Your task to perform on an android device: turn off translation in the chrome app Image 0: 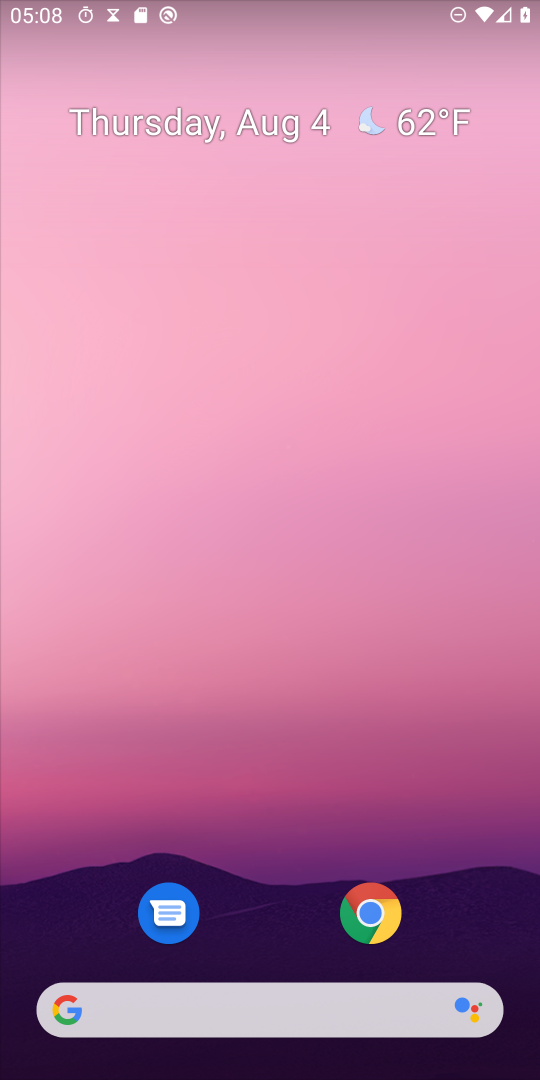
Step 0: drag from (306, 1023) to (199, 188)
Your task to perform on an android device: turn off translation in the chrome app Image 1: 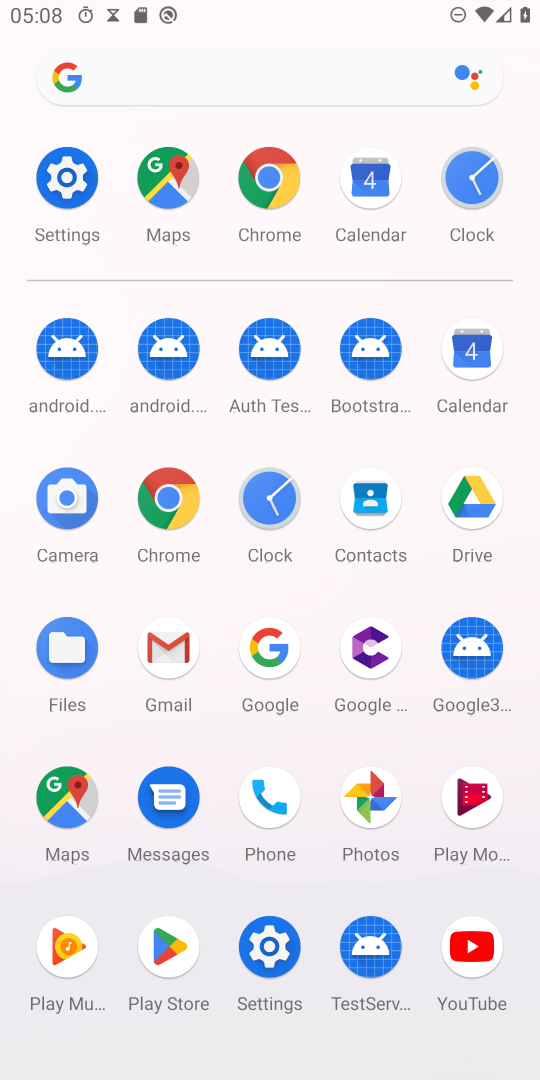
Step 1: click (272, 182)
Your task to perform on an android device: turn off translation in the chrome app Image 2: 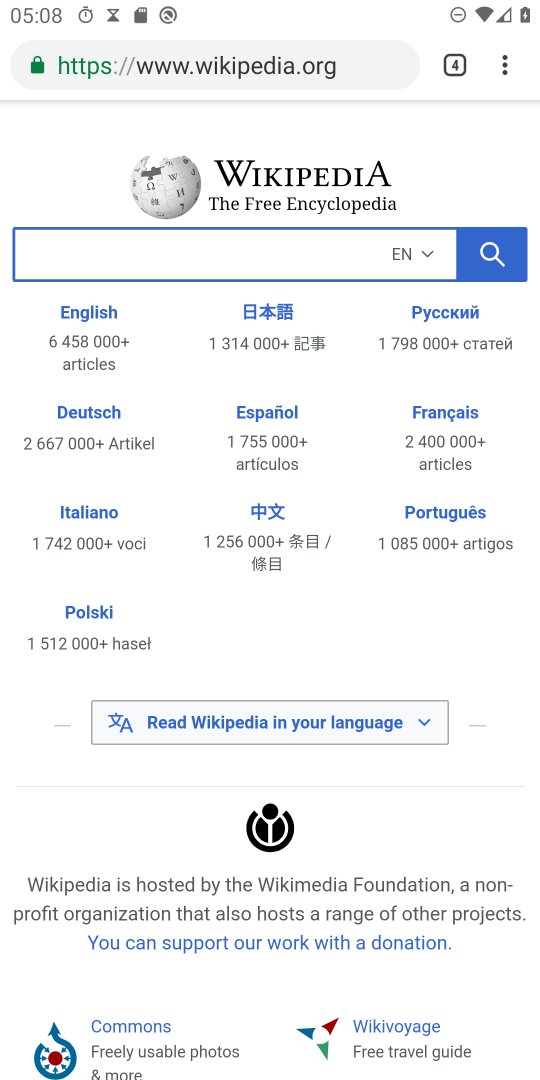
Step 2: drag from (503, 47) to (328, 724)
Your task to perform on an android device: turn off translation in the chrome app Image 3: 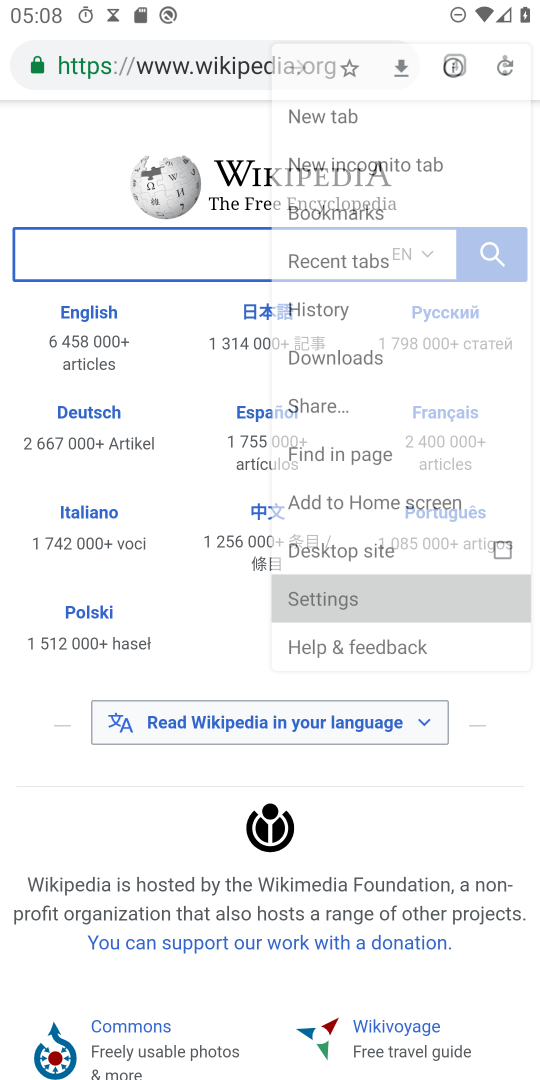
Step 3: click (331, 721)
Your task to perform on an android device: turn off translation in the chrome app Image 4: 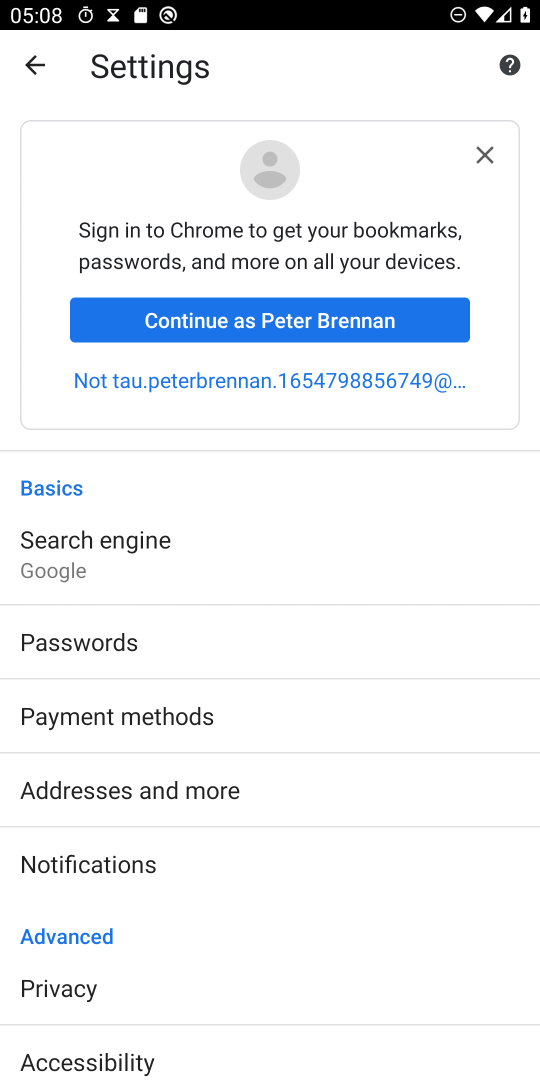
Step 4: drag from (264, 935) to (316, 228)
Your task to perform on an android device: turn off translation in the chrome app Image 5: 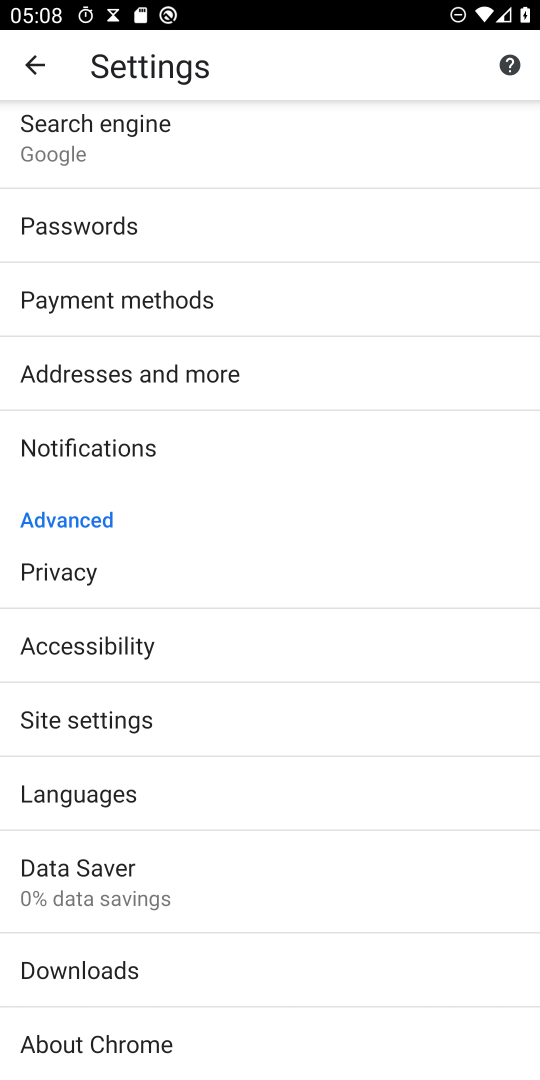
Step 5: click (249, 793)
Your task to perform on an android device: turn off translation in the chrome app Image 6: 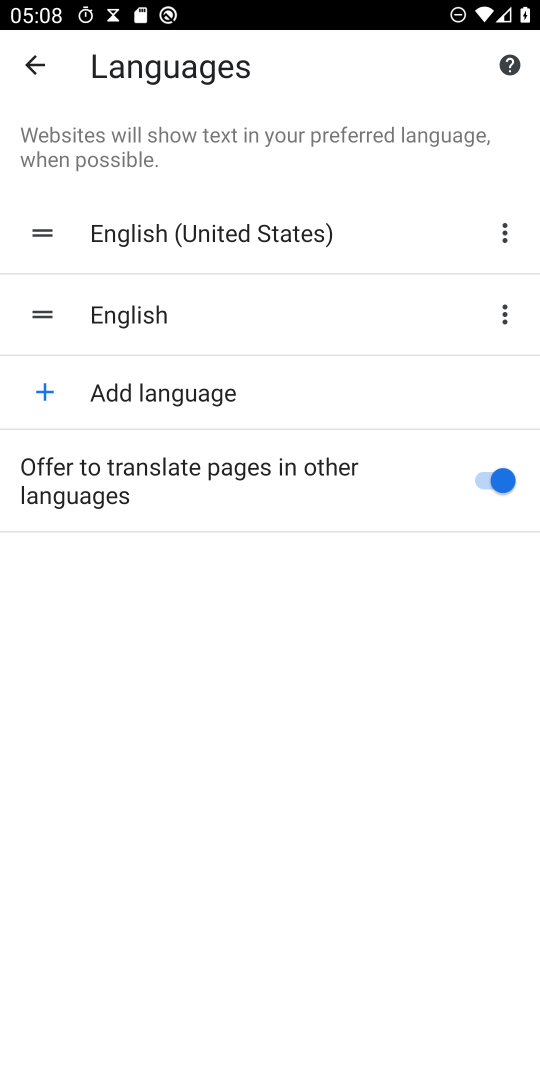
Step 6: click (495, 482)
Your task to perform on an android device: turn off translation in the chrome app Image 7: 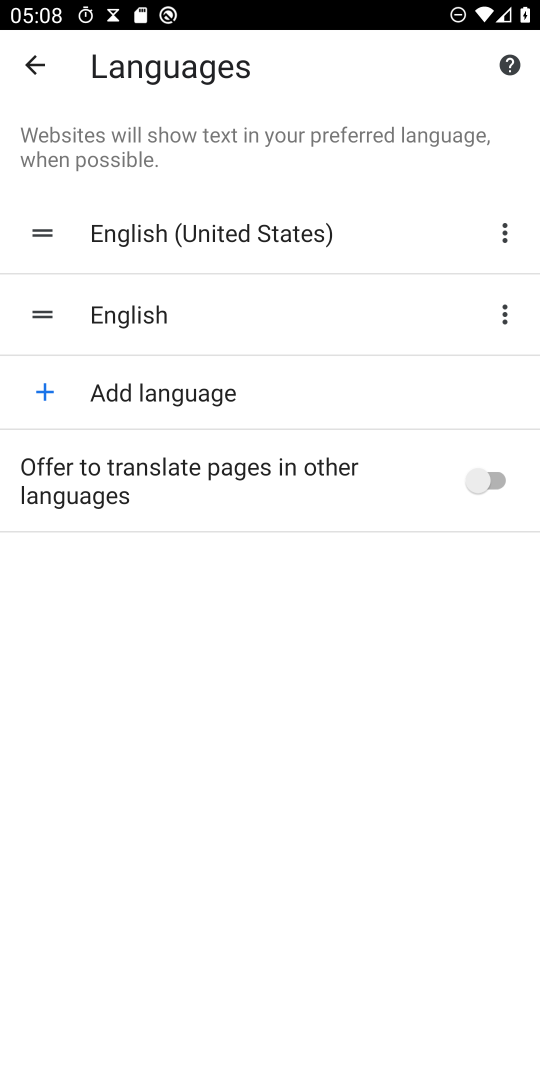
Step 7: task complete